Your task to perform on an android device: visit the assistant section in the google photos Image 0: 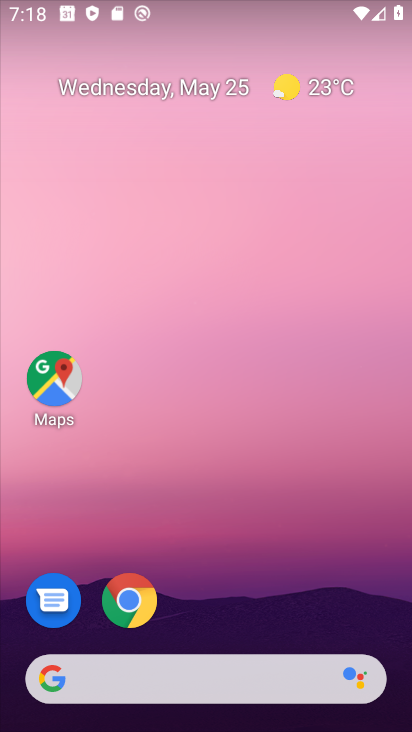
Step 0: drag from (295, 590) to (196, 158)
Your task to perform on an android device: visit the assistant section in the google photos Image 1: 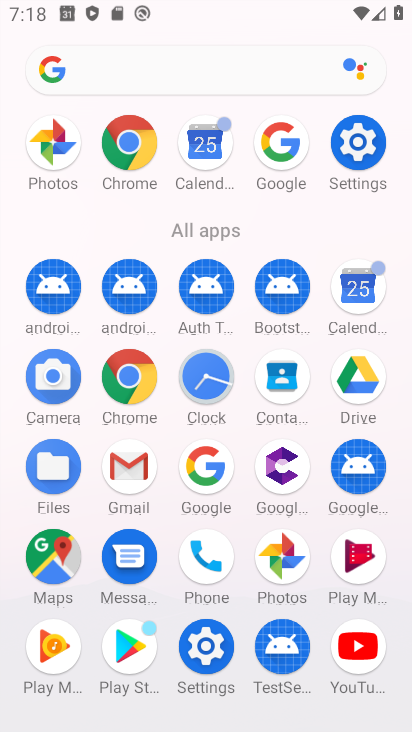
Step 1: click (54, 141)
Your task to perform on an android device: visit the assistant section in the google photos Image 2: 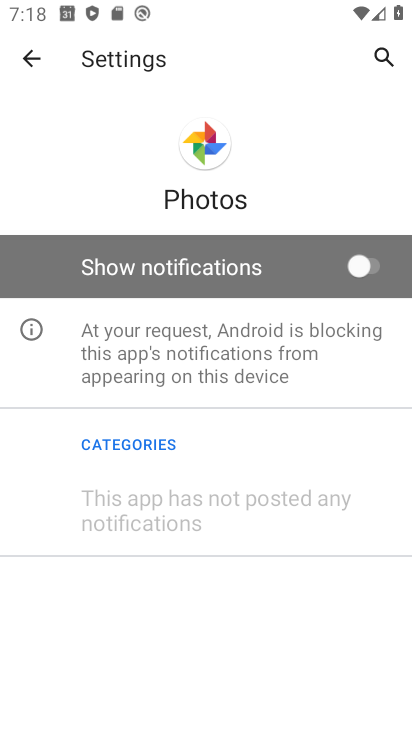
Step 2: press back button
Your task to perform on an android device: visit the assistant section in the google photos Image 3: 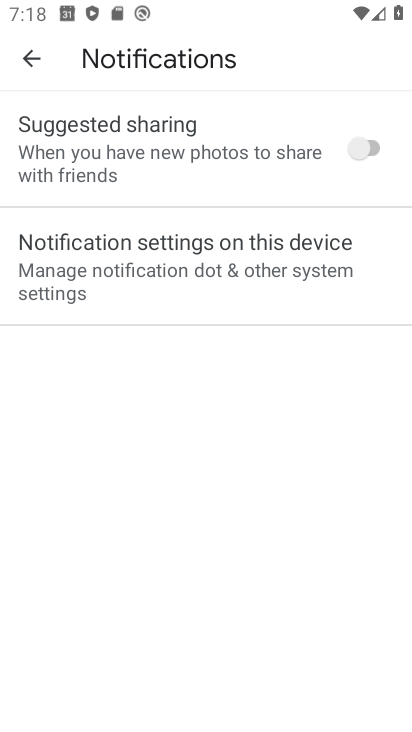
Step 3: press back button
Your task to perform on an android device: visit the assistant section in the google photos Image 4: 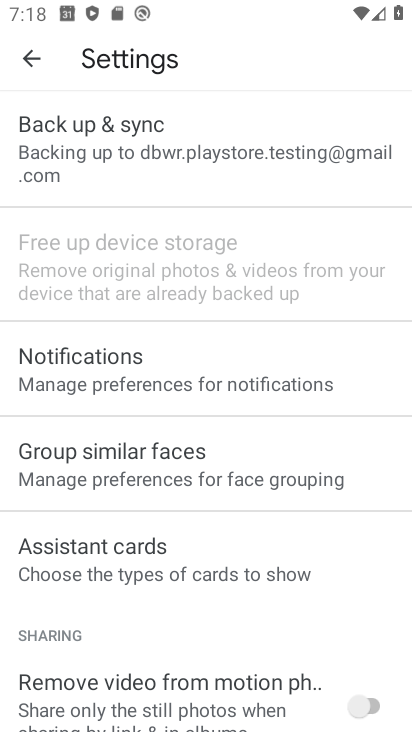
Step 4: press back button
Your task to perform on an android device: visit the assistant section in the google photos Image 5: 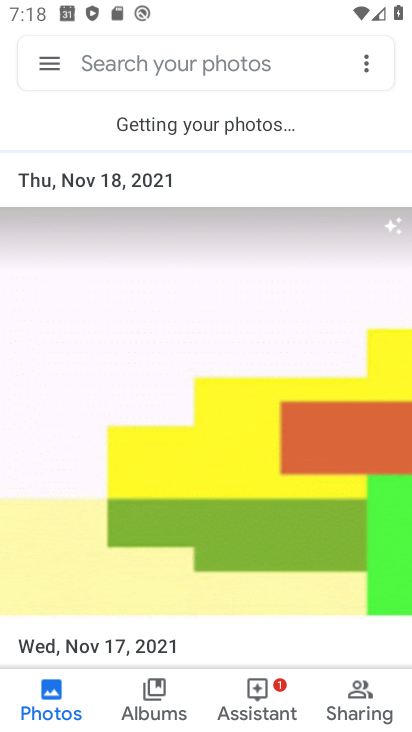
Step 5: click (264, 688)
Your task to perform on an android device: visit the assistant section in the google photos Image 6: 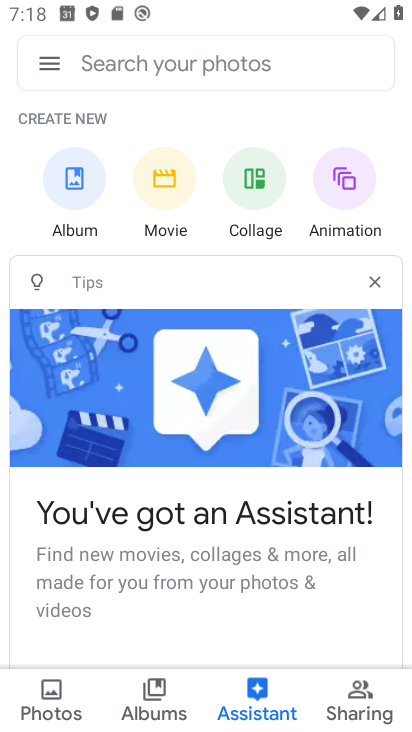
Step 6: task complete